Your task to perform on an android device: search for starred emails in the gmail app Image 0: 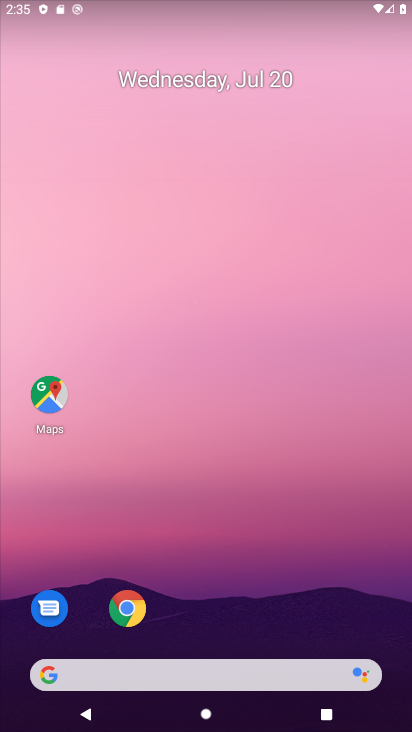
Step 0: drag from (173, 613) to (201, 154)
Your task to perform on an android device: search for starred emails in the gmail app Image 1: 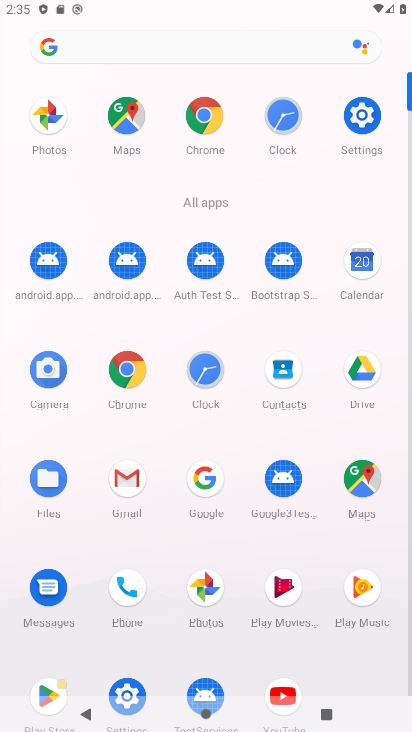
Step 1: drag from (130, 481) to (51, 238)
Your task to perform on an android device: search for starred emails in the gmail app Image 2: 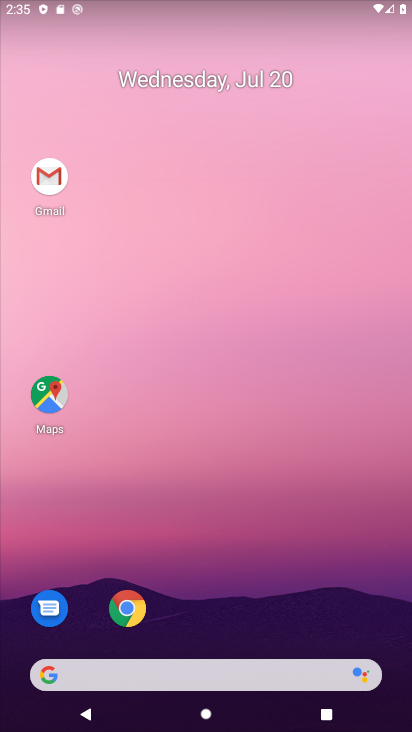
Step 2: click (56, 168)
Your task to perform on an android device: search for starred emails in the gmail app Image 3: 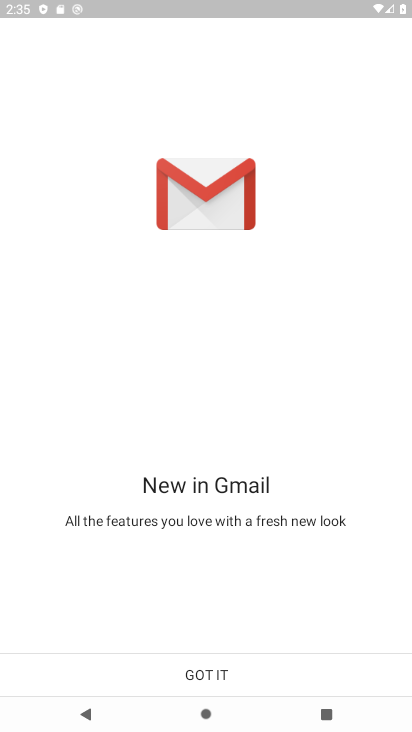
Step 3: click (248, 664)
Your task to perform on an android device: search for starred emails in the gmail app Image 4: 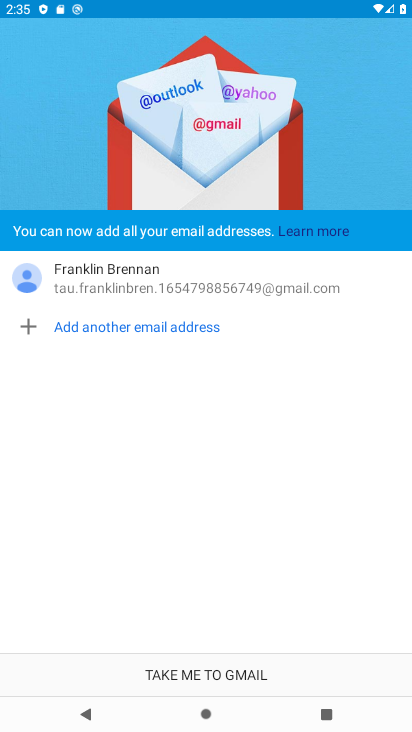
Step 4: click (209, 683)
Your task to perform on an android device: search for starred emails in the gmail app Image 5: 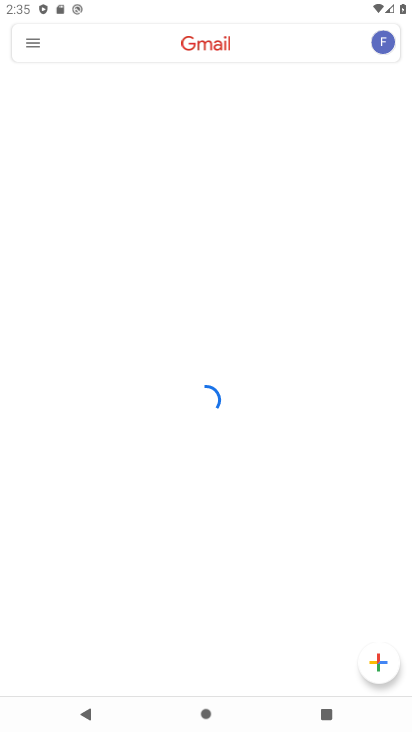
Step 5: click (37, 41)
Your task to perform on an android device: search for starred emails in the gmail app Image 6: 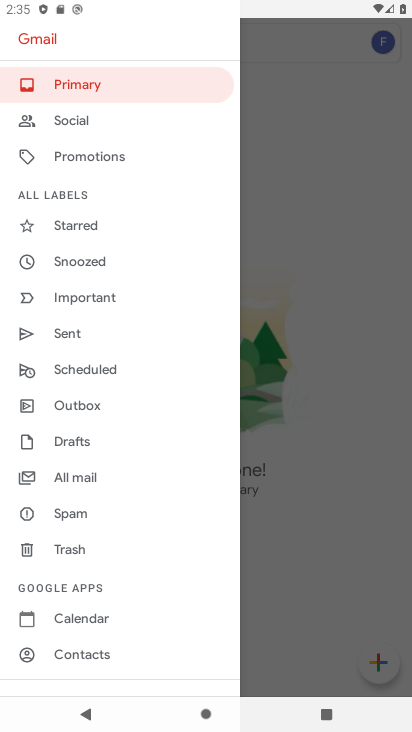
Step 6: click (77, 218)
Your task to perform on an android device: search for starred emails in the gmail app Image 7: 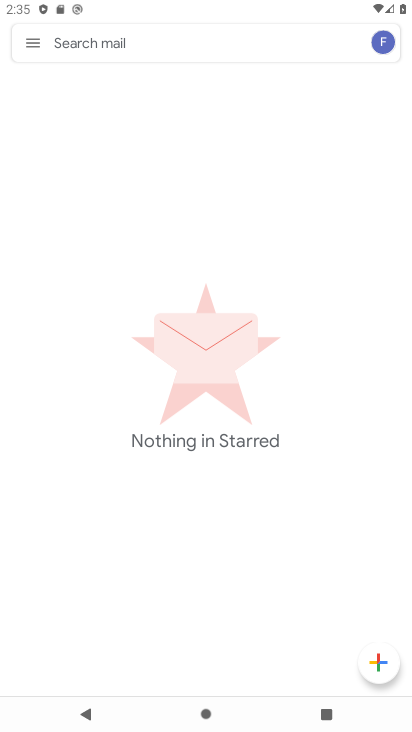
Step 7: task complete